Your task to perform on an android device: clear history in the chrome app Image 0: 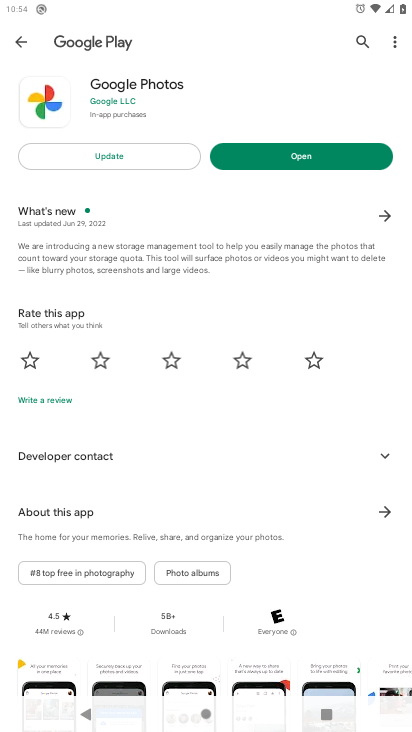
Step 0: press home button
Your task to perform on an android device: clear history in the chrome app Image 1: 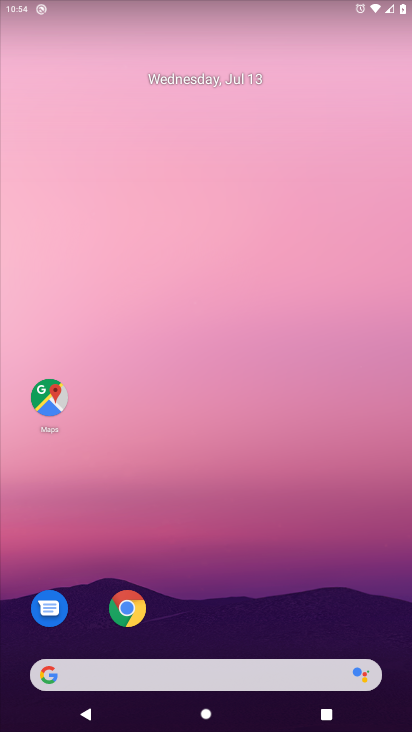
Step 1: click (147, 609)
Your task to perform on an android device: clear history in the chrome app Image 2: 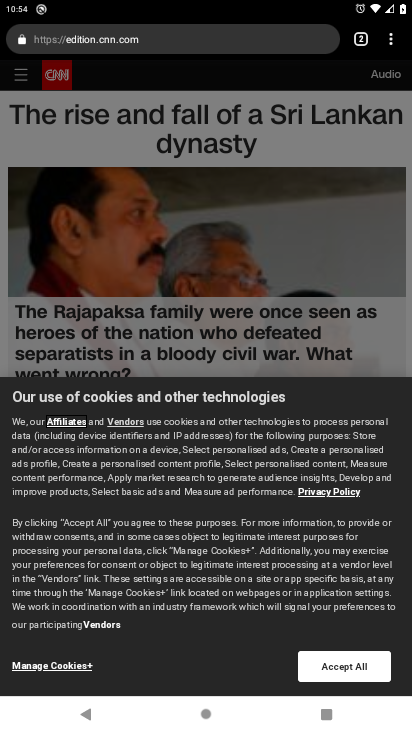
Step 2: click (392, 41)
Your task to perform on an android device: clear history in the chrome app Image 3: 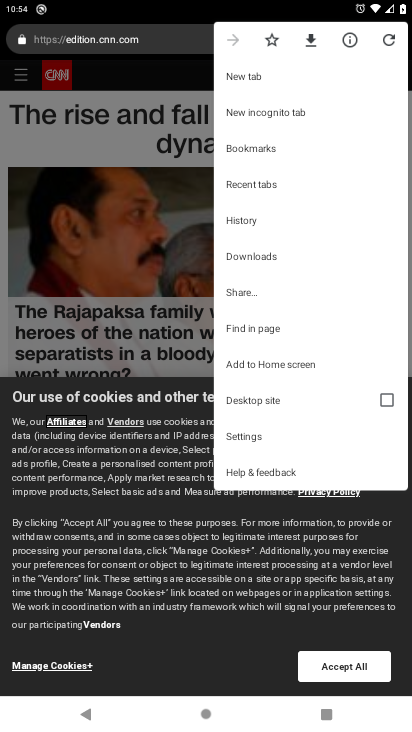
Step 3: click (248, 214)
Your task to perform on an android device: clear history in the chrome app Image 4: 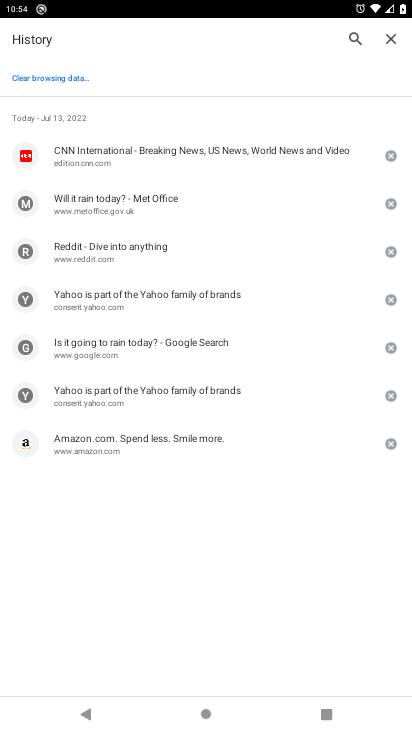
Step 4: click (54, 75)
Your task to perform on an android device: clear history in the chrome app Image 5: 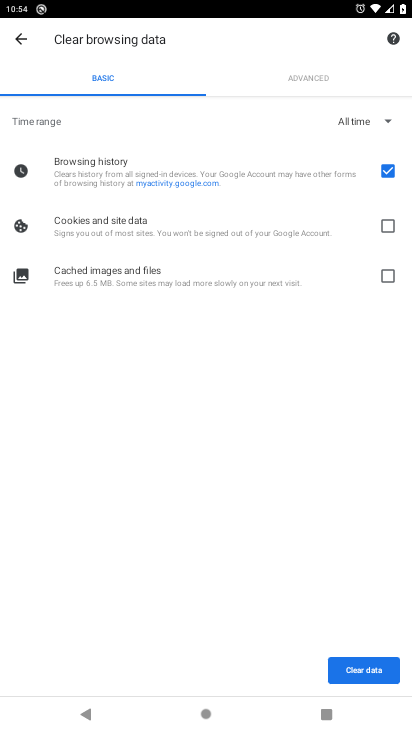
Step 5: click (367, 679)
Your task to perform on an android device: clear history in the chrome app Image 6: 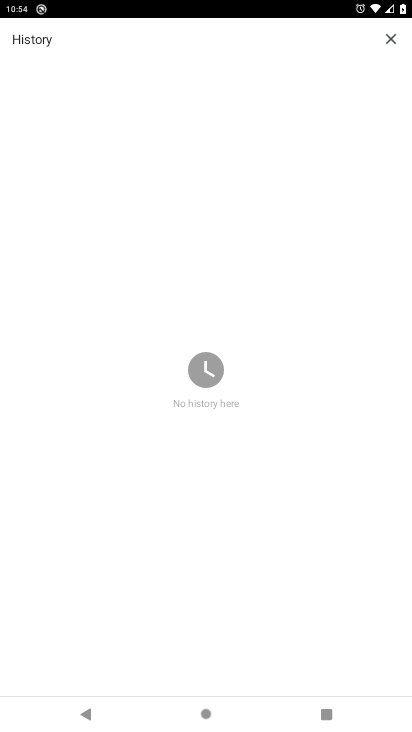
Step 6: task complete